Your task to perform on an android device: add a label to a message in the gmail app Image 0: 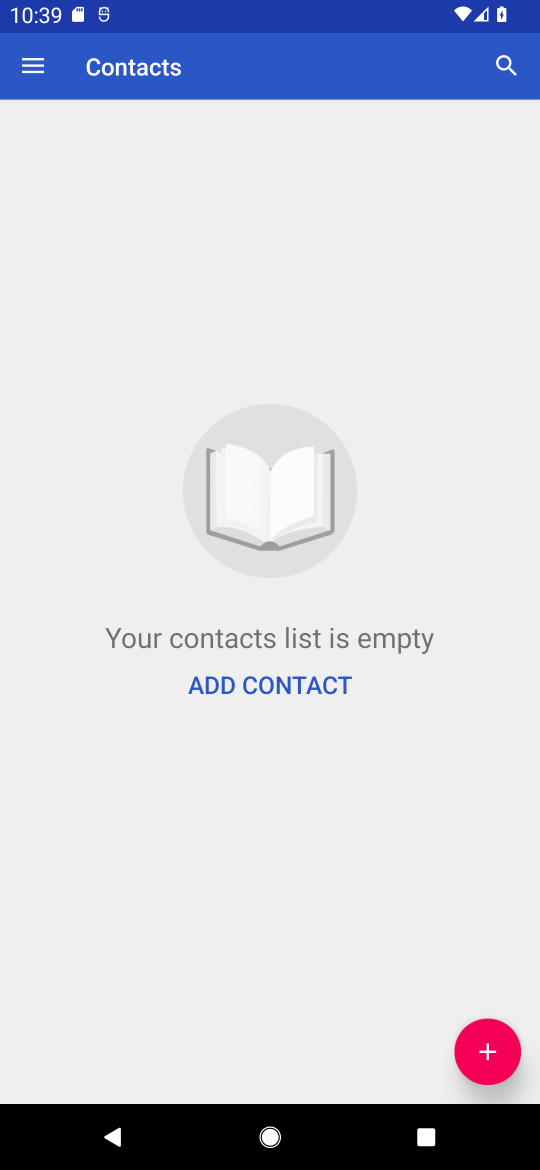
Step 0: press home button
Your task to perform on an android device: add a label to a message in the gmail app Image 1: 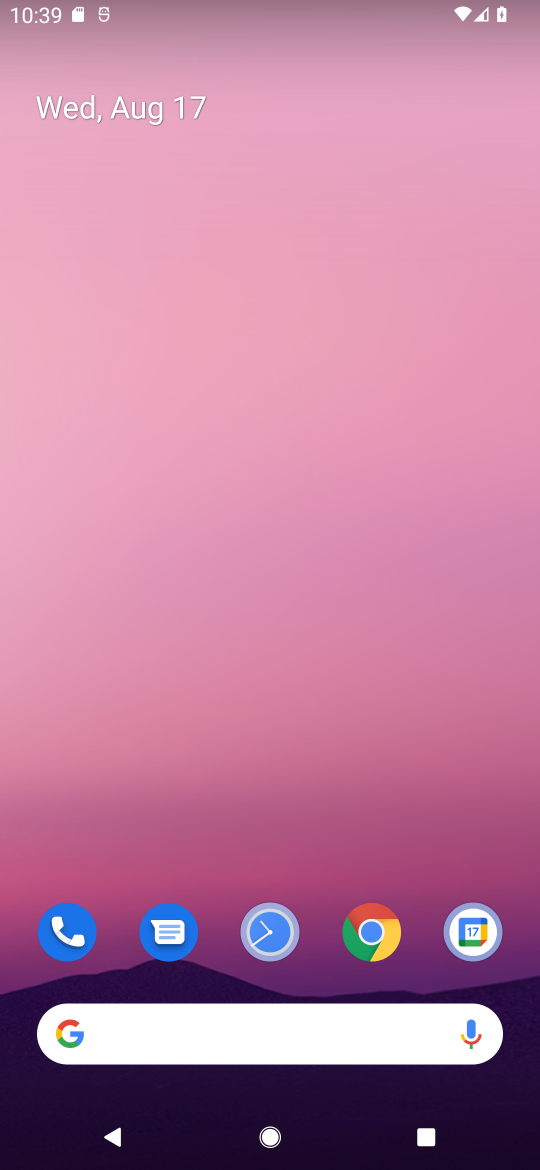
Step 1: drag from (301, 985) to (316, 4)
Your task to perform on an android device: add a label to a message in the gmail app Image 2: 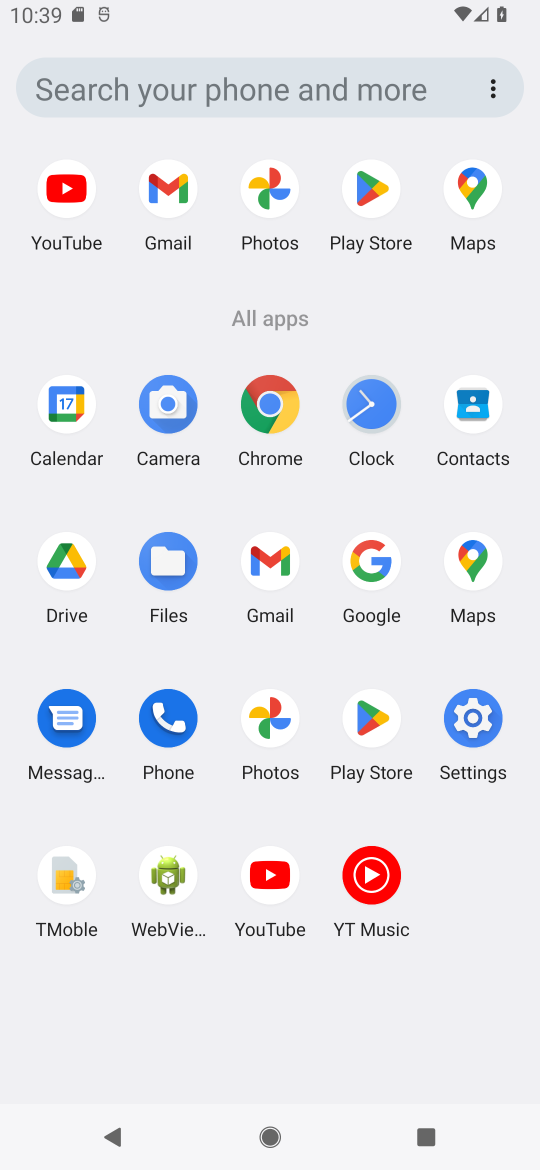
Step 2: click (255, 564)
Your task to perform on an android device: add a label to a message in the gmail app Image 3: 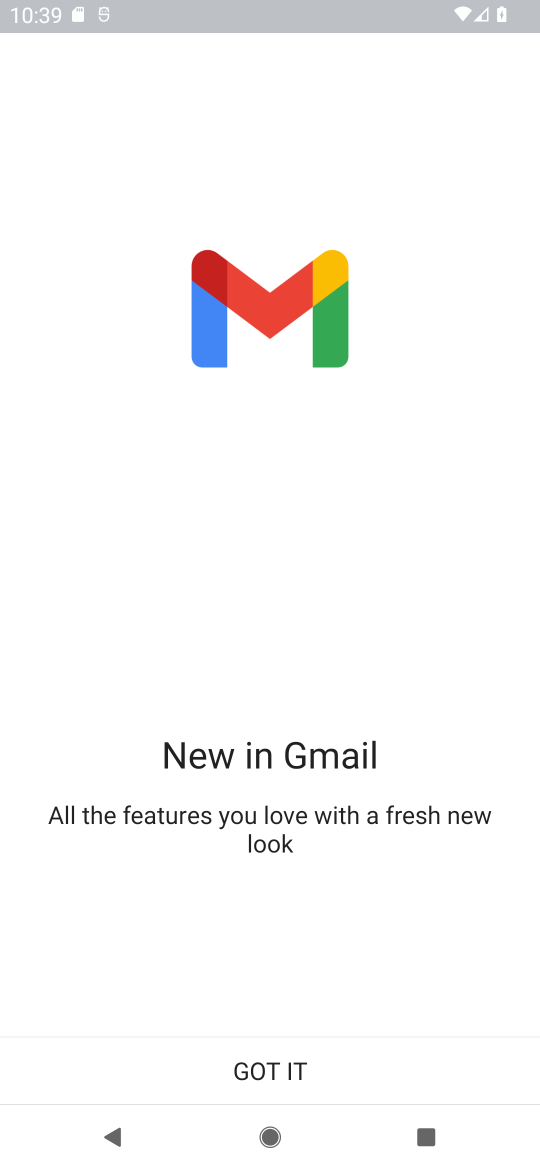
Step 3: click (264, 1069)
Your task to perform on an android device: add a label to a message in the gmail app Image 4: 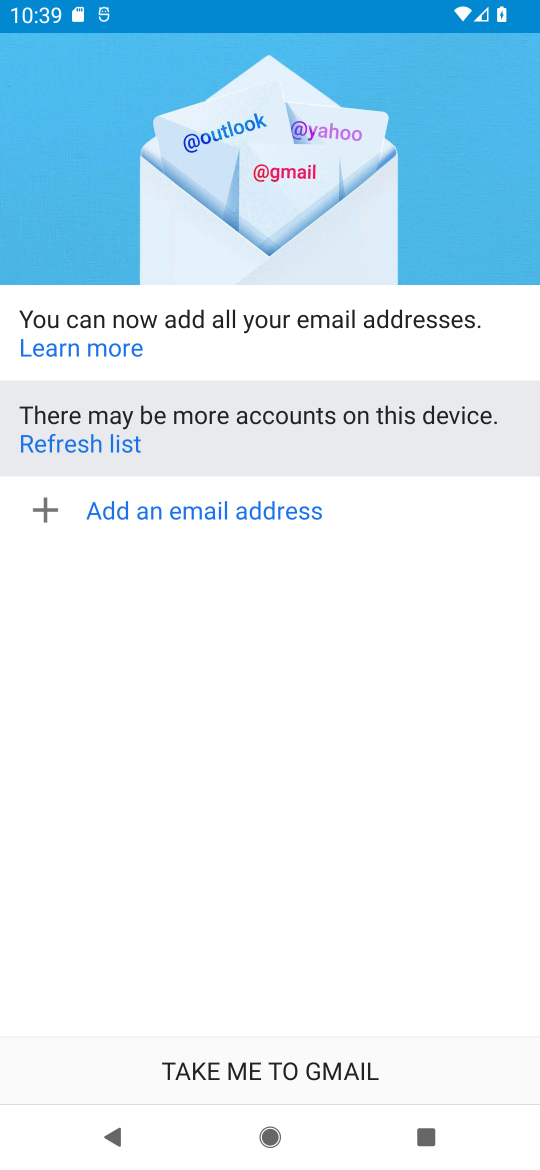
Step 4: task complete